Your task to perform on an android device: Go to CNN.com Image 0: 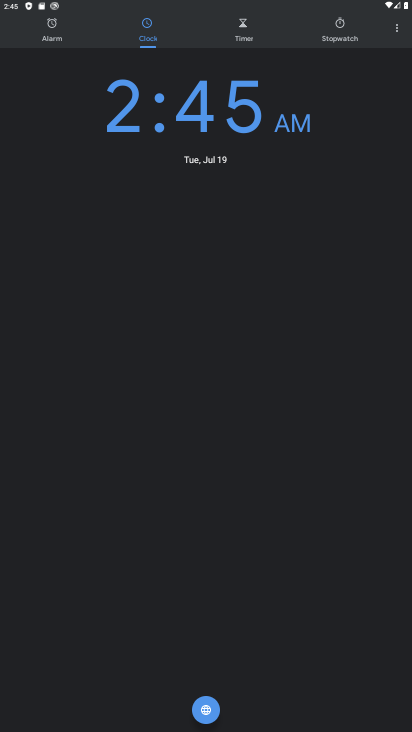
Step 0: press home button
Your task to perform on an android device: Go to CNN.com Image 1: 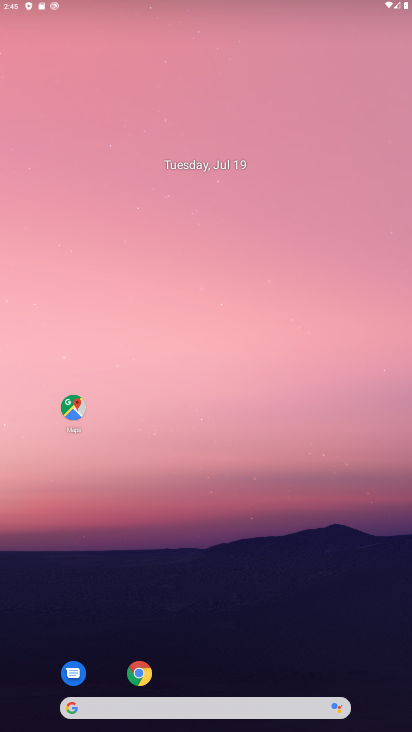
Step 1: drag from (264, 582) to (238, 139)
Your task to perform on an android device: Go to CNN.com Image 2: 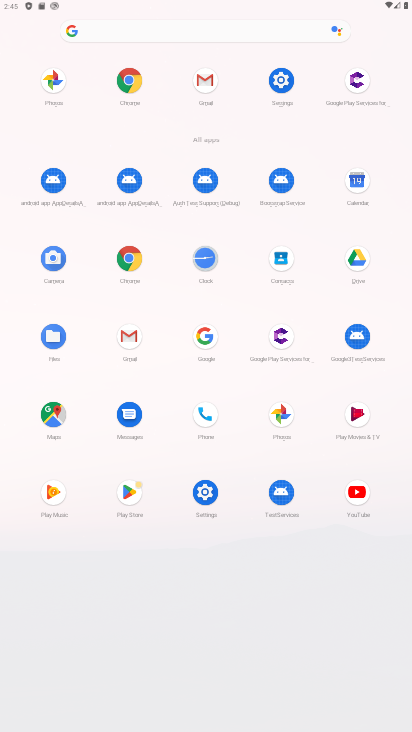
Step 2: click (138, 274)
Your task to perform on an android device: Go to CNN.com Image 3: 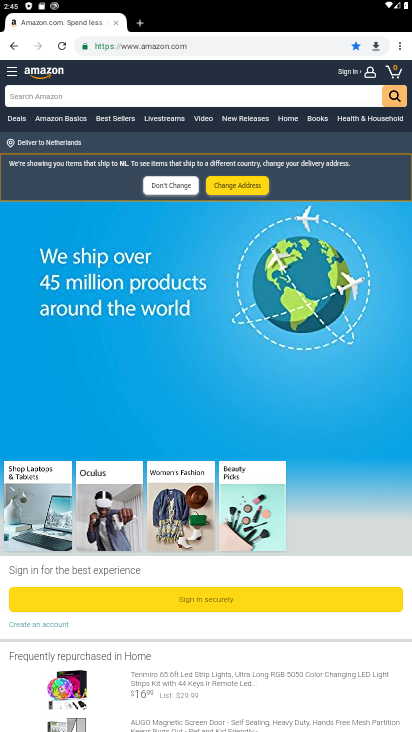
Step 3: click (140, 29)
Your task to perform on an android device: Go to CNN.com Image 4: 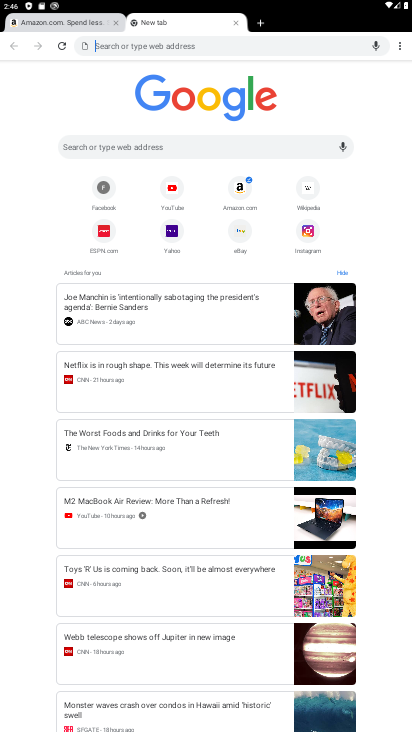
Step 4: click (115, 43)
Your task to perform on an android device: Go to CNN.com Image 5: 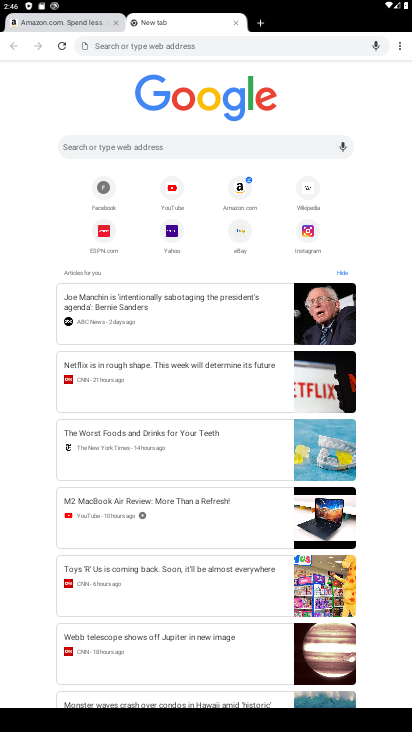
Step 5: click (117, 40)
Your task to perform on an android device: Go to CNN.com Image 6: 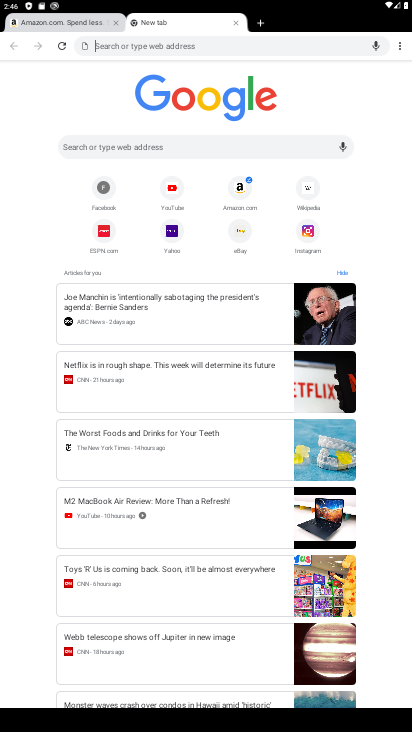
Step 6: type "CNN.com"
Your task to perform on an android device: Go to CNN.com Image 7: 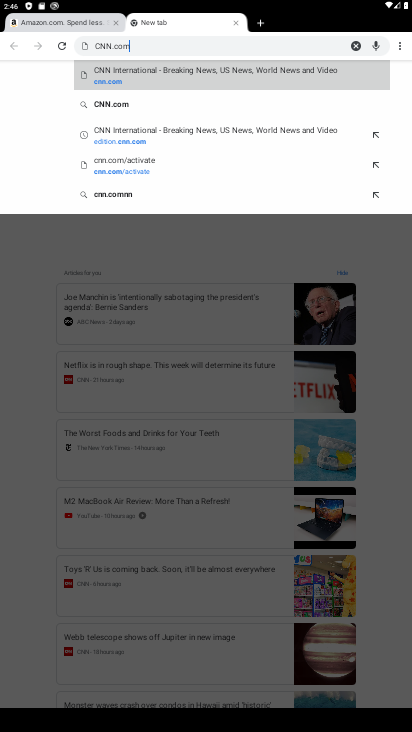
Step 7: type ""
Your task to perform on an android device: Go to CNN.com Image 8: 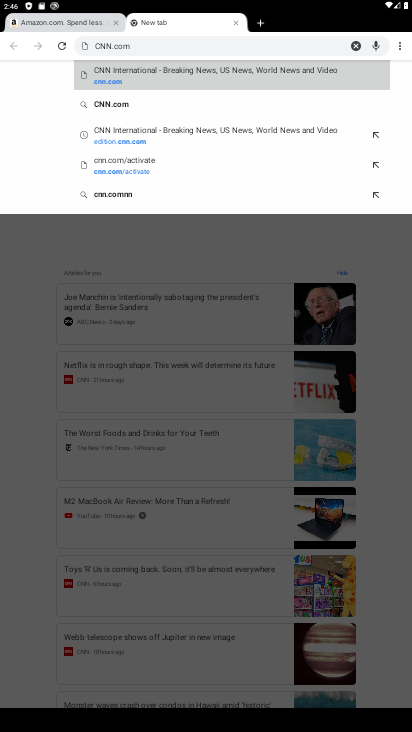
Step 8: click (103, 71)
Your task to perform on an android device: Go to CNN.com Image 9: 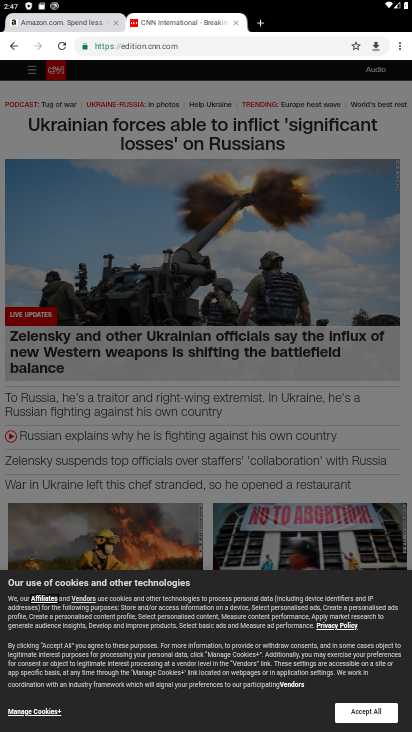
Step 9: task complete